Your task to perform on an android device: toggle location history Image 0: 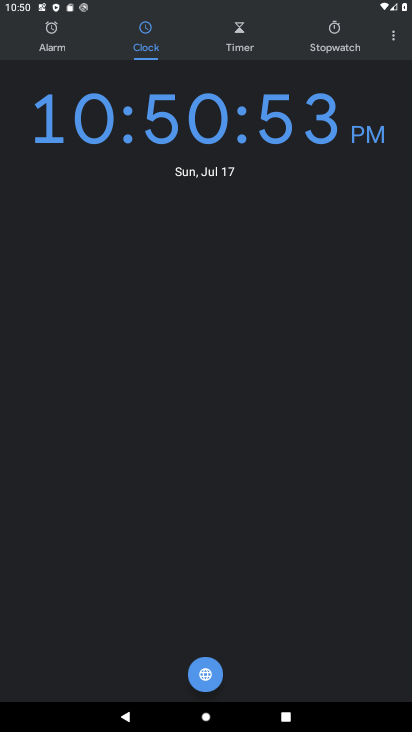
Step 0: press home button
Your task to perform on an android device: toggle location history Image 1: 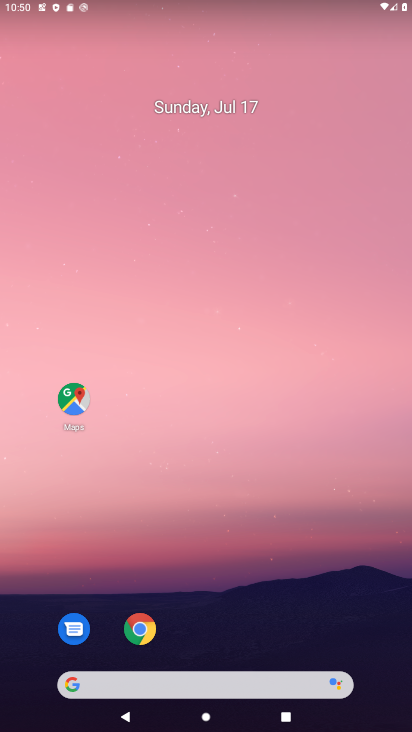
Step 1: drag from (237, 621) to (246, 16)
Your task to perform on an android device: toggle location history Image 2: 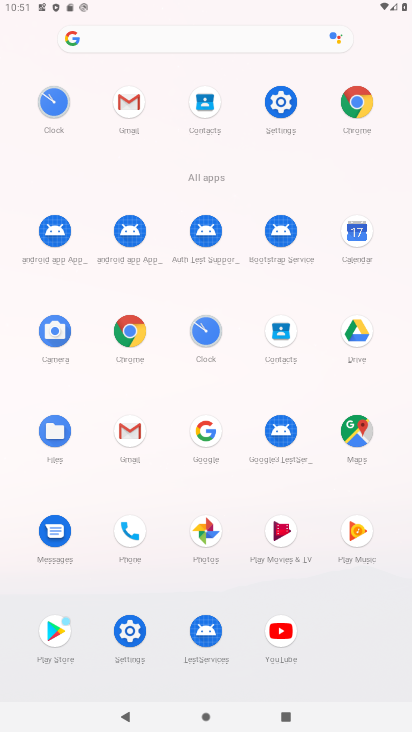
Step 2: click (129, 630)
Your task to perform on an android device: toggle location history Image 3: 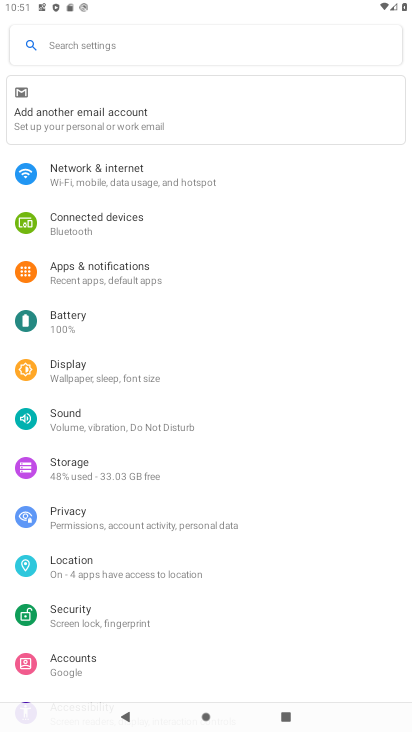
Step 3: click (115, 564)
Your task to perform on an android device: toggle location history Image 4: 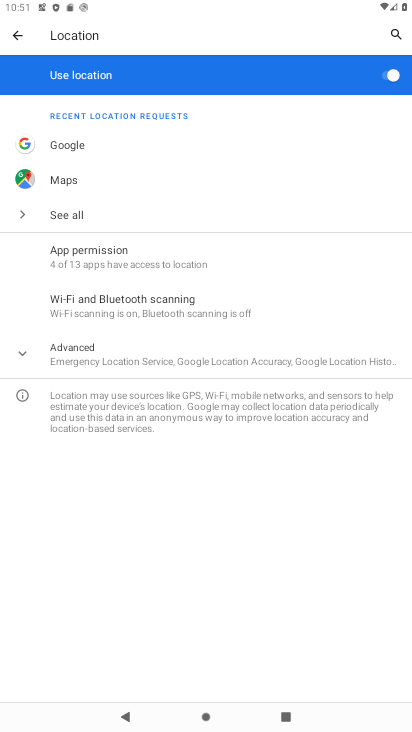
Step 4: click (110, 358)
Your task to perform on an android device: toggle location history Image 5: 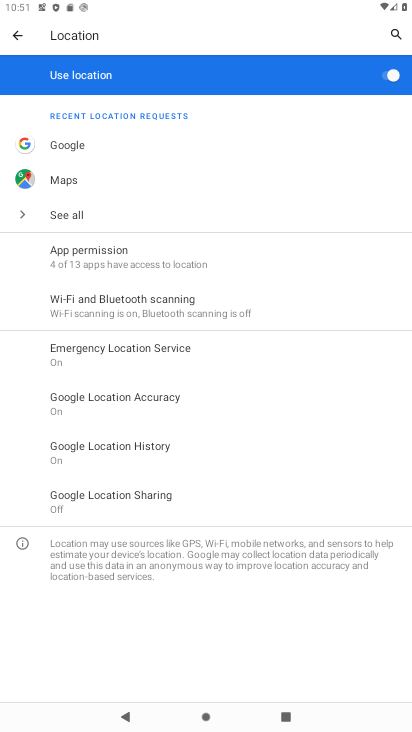
Step 5: click (134, 443)
Your task to perform on an android device: toggle location history Image 6: 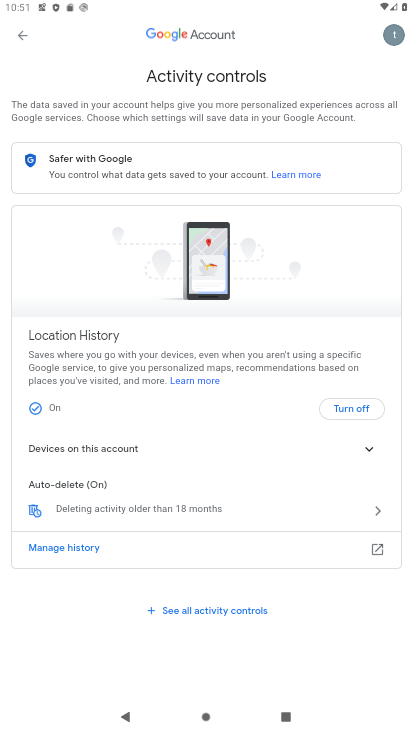
Step 6: click (354, 413)
Your task to perform on an android device: toggle location history Image 7: 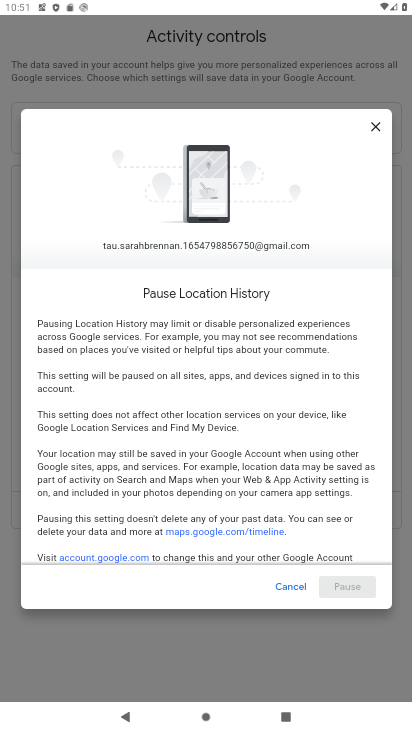
Step 7: drag from (314, 518) to (268, 131)
Your task to perform on an android device: toggle location history Image 8: 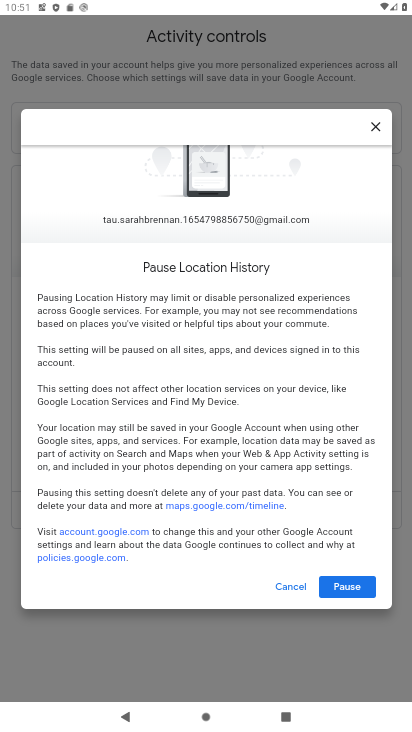
Step 8: click (340, 586)
Your task to perform on an android device: toggle location history Image 9: 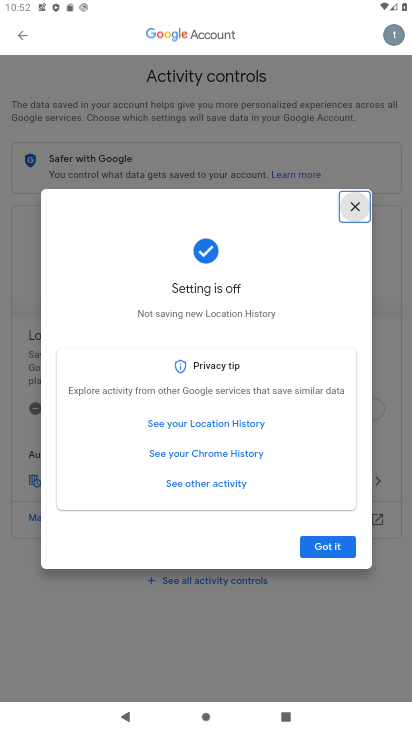
Step 9: click (323, 557)
Your task to perform on an android device: toggle location history Image 10: 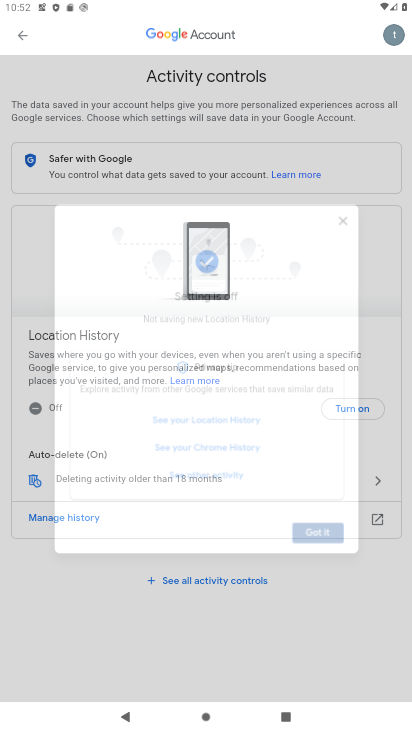
Step 10: task complete